Your task to perform on an android device: Go to network settings Image 0: 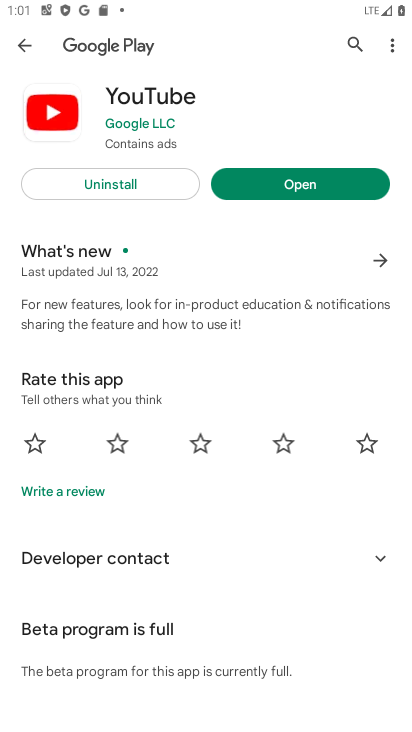
Step 0: press home button
Your task to perform on an android device: Go to network settings Image 1: 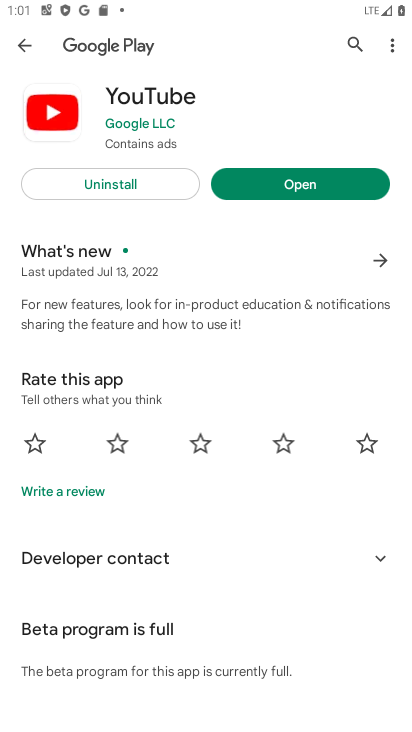
Step 1: click (55, 158)
Your task to perform on an android device: Go to network settings Image 2: 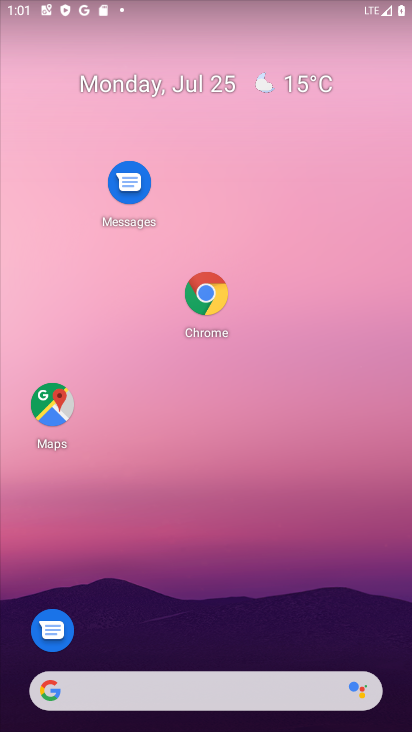
Step 2: drag from (261, 474) to (147, 42)
Your task to perform on an android device: Go to network settings Image 3: 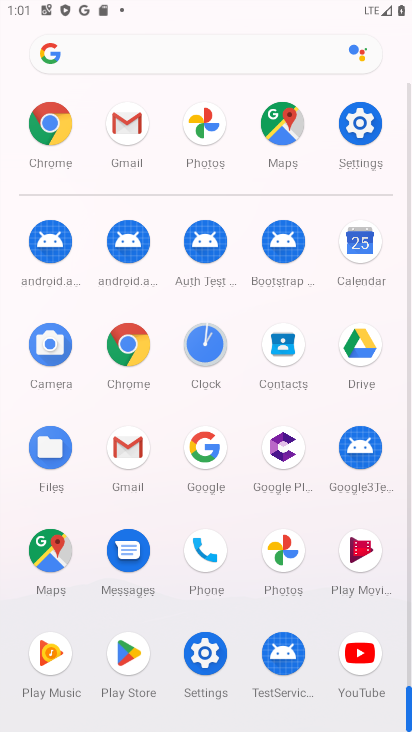
Step 3: click (351, 131)
Your task to perform on an android device: Go to network settings Image 4: 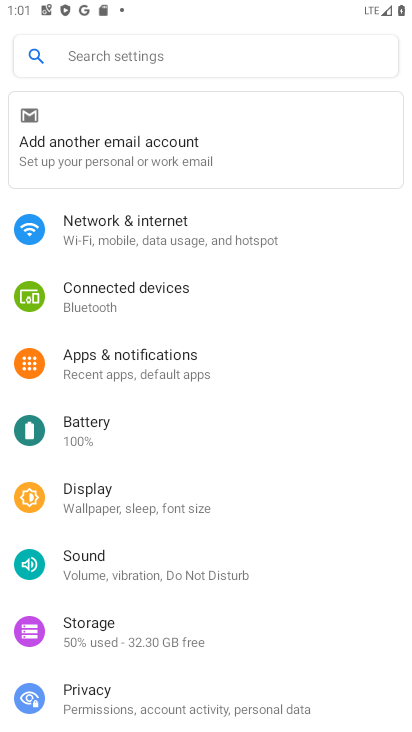
Step 4: click (180, 235)
Your task to perform on an android device: Go to network settings Image 5: 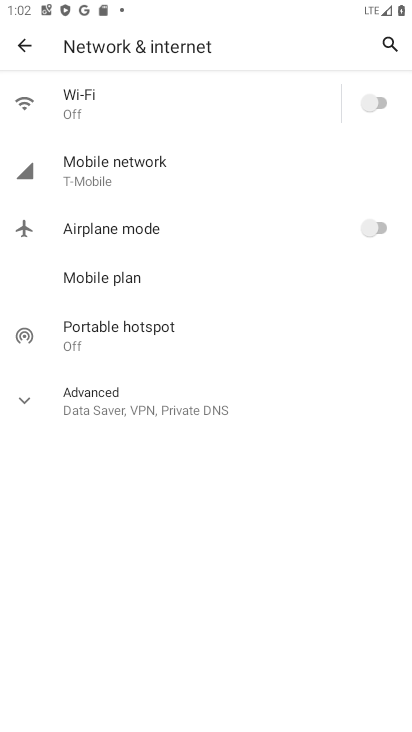
Step 5: task complete